Your task to perform on an android device: Open Yahoo.com Image 0: 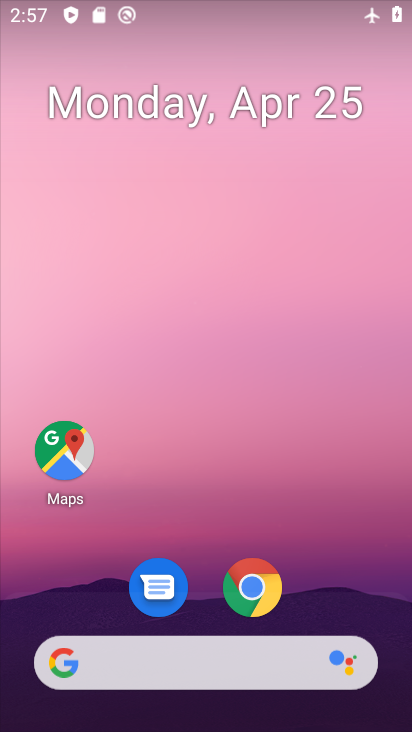
Step 0: click (254, 594)
Your task to perform on an android device: Open Yahoo.com Image 1: 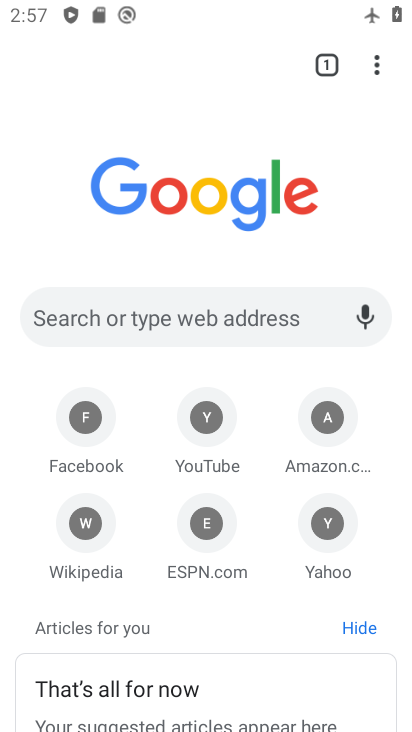
Step 1: click (321, 526)
Your task to perform on an android device: Open Yahoo.com Image 2: 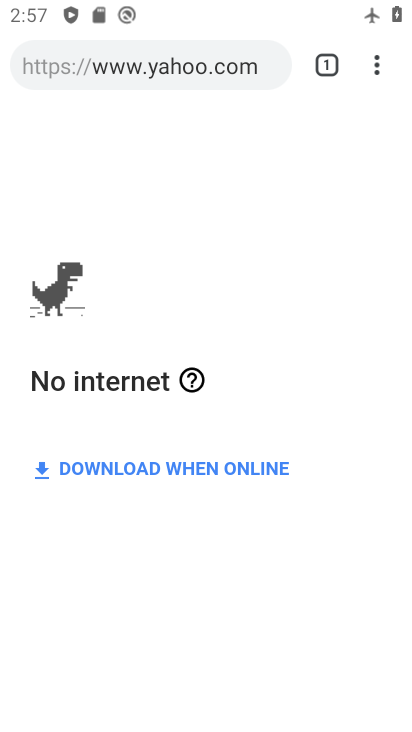
Step 2: task complete